Your task to perform on an android device: star an email in the gmail app Image 0: 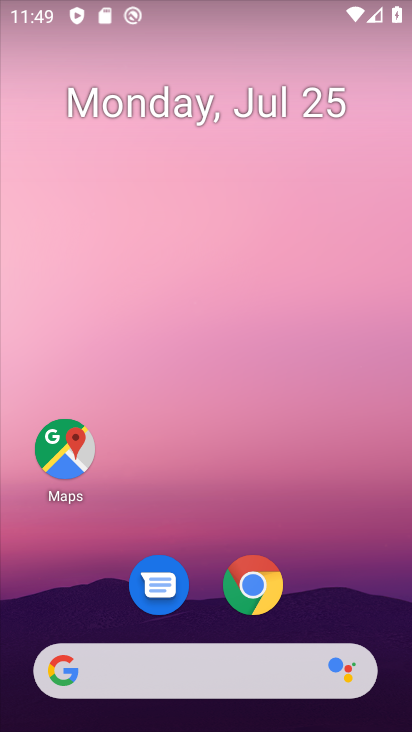
Step 0: press home button
Your task to perform on an android device: star an email in the gmail app Image 1: 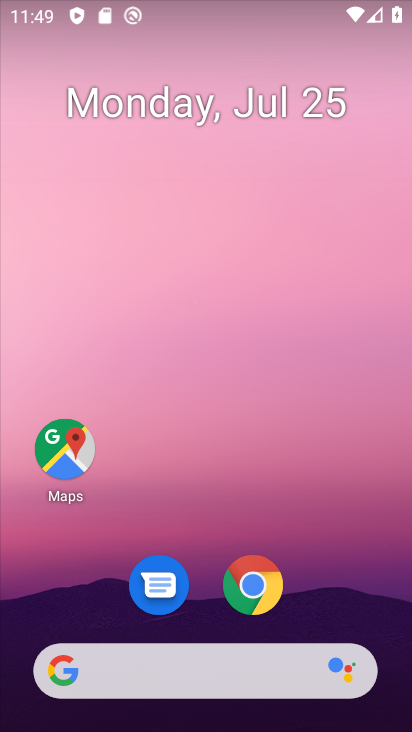
Step 1: drag from (330, 592) to (337, 45)
Your task to perform on an android device: star an email in the gmail app Image 2: 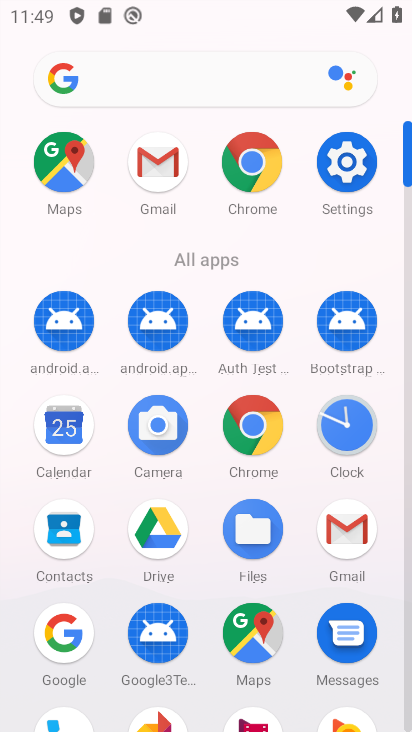
Step 2: click (177, 162)
Your task to perform on an android device: star an email in the gmail app Image 3: 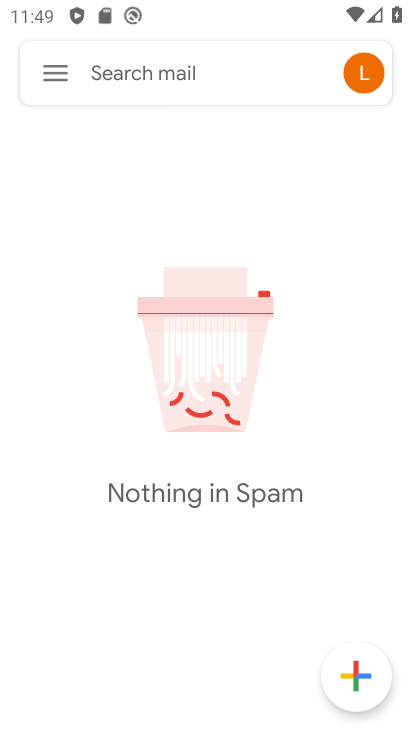
Step 3: click (58, 69)
Your task to perform on an android device: star an email in the gmail app Image 4: 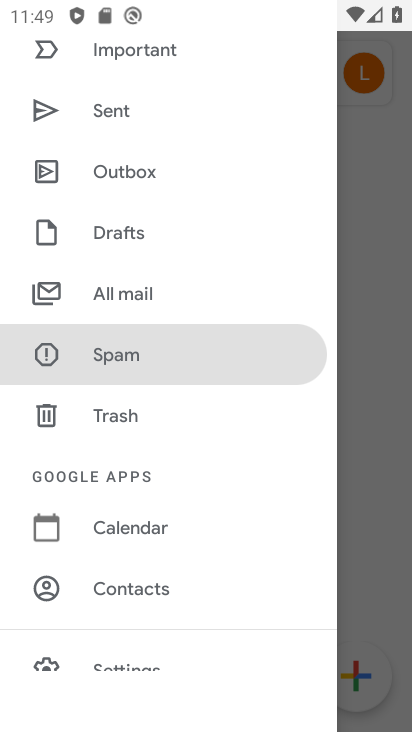
Step 4: click (122, 281)
Your task to perform on an android device: star an email in the gmail app Image 5: 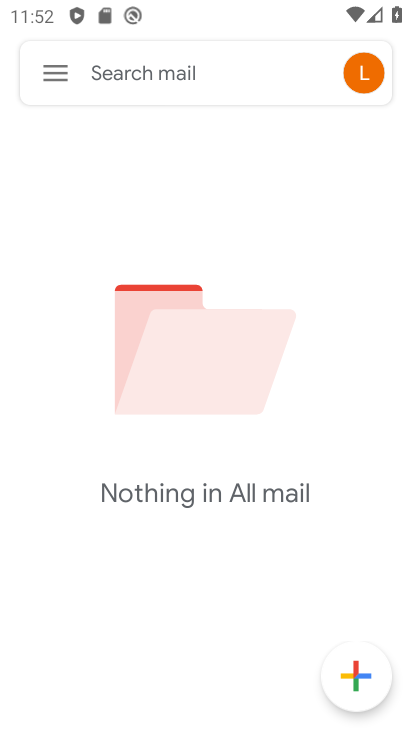
Step 5: task complete